Your task to perform on an android device: Open calendar and show me the second week of next month Image 0: 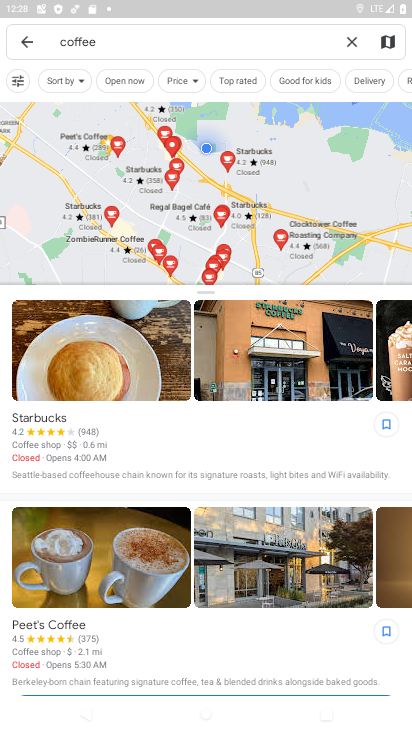
Step 0: press home button
Your task to perform on an android device: Open calendar and show me the second week of next month Image 1: 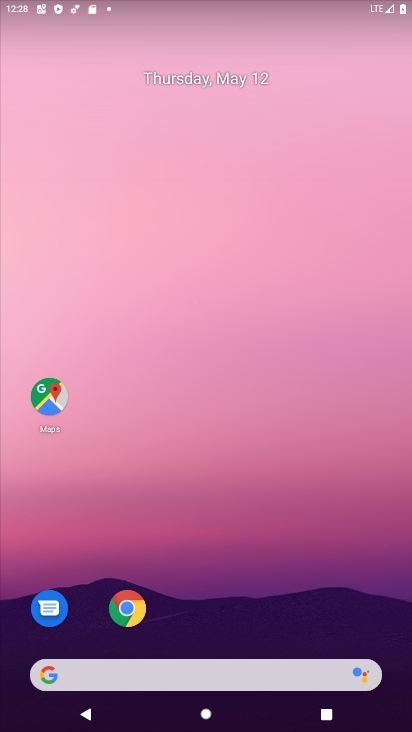
Step 1: drag from (333, 636) to (258, 10)
Your task to perform on an android device: Open calendar and show me the second week of next month Image 2: 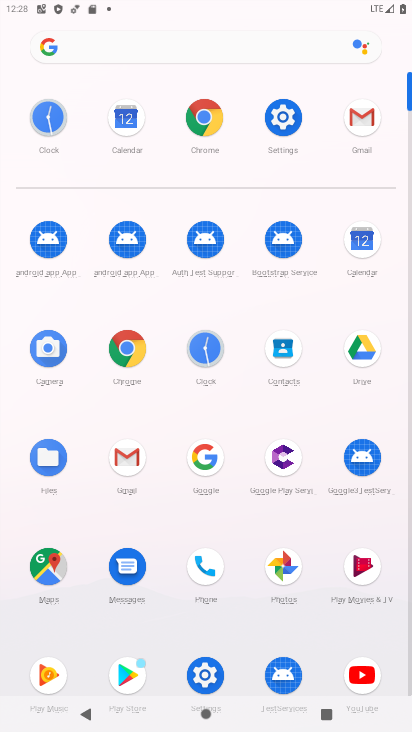
Step 2: click (124, 116)
Your task to perform on an android device: Open calendar and show me the second week of next month Image 3: 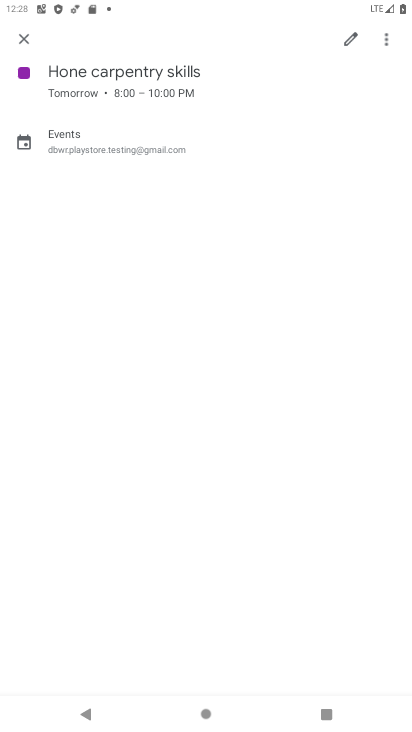
Step 3: click (25, 39)
Your task to perform on an android device: Open calendar and show me the second week of next month Image 4: 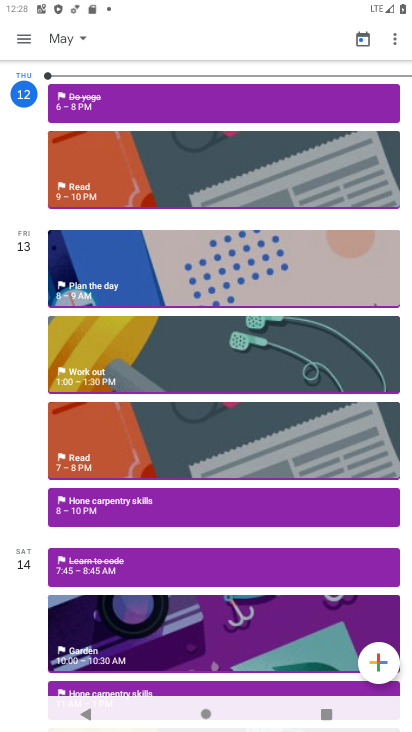
Step 4: click (85, 41)
Your task to perform on an android device: Open calendar and show me the second week of next month Image 5: 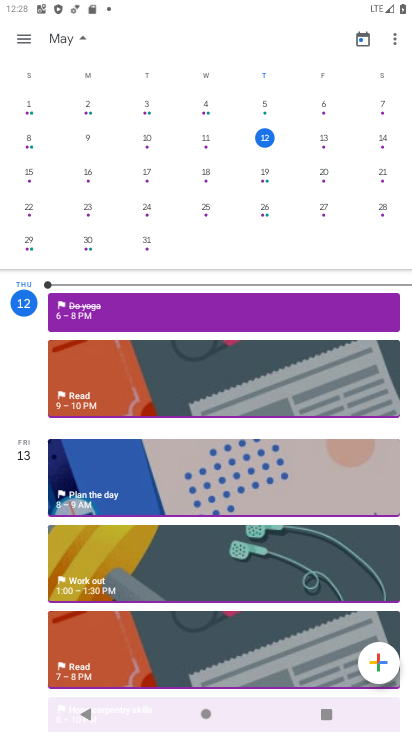
Step 5: drag from (391, 209) to (1, 128)
Your task to perform on an android device: Open calendar and show me the second week of next month Image 6: 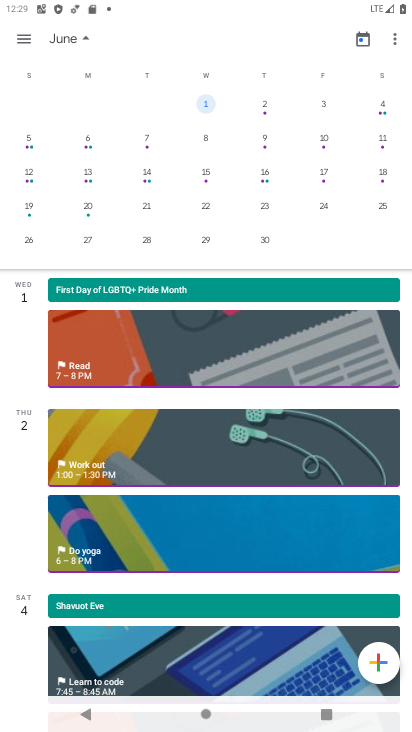
Step 6: click (14, 38)
Your task to perform on an android device: Open calendar and show me the second week of next month Image 7: 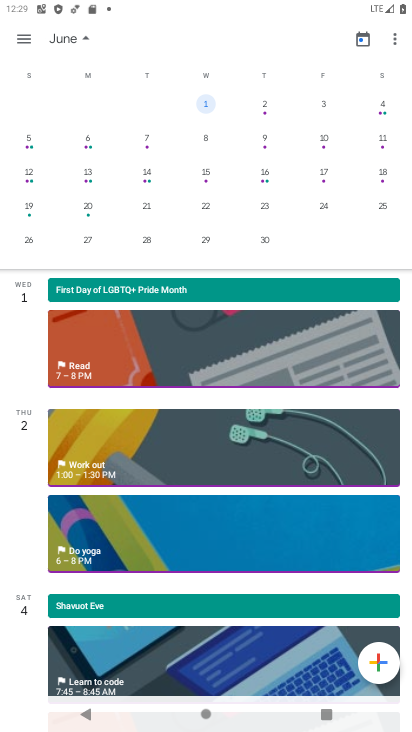
Step 7: click (25, 41)
Your task to perform on an android device: Open calendar and show me the second week of next month Image 8: 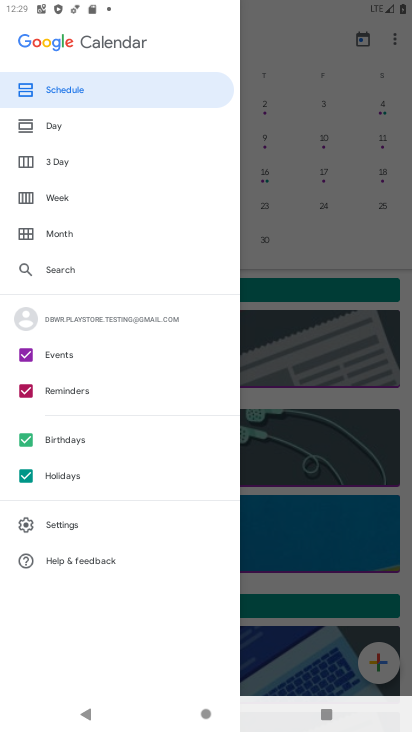
Step 8: click (48, 204)
Your task to perform on an android device: Open calendar and show me the second week of next month Image 9: 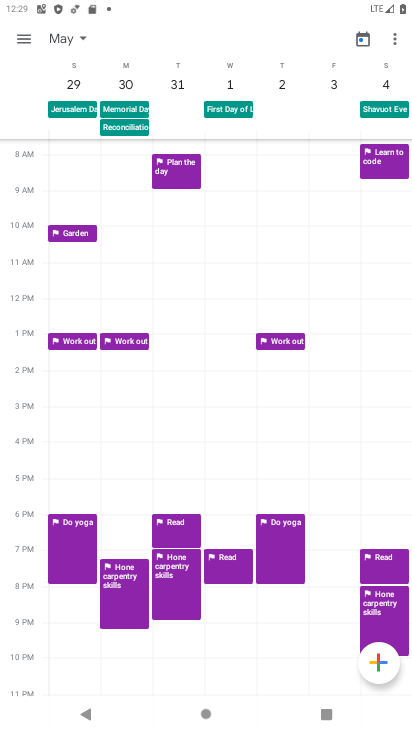
Step 9: task complete